Your task to perform on an android device: Turn off the flashlight Image 0: 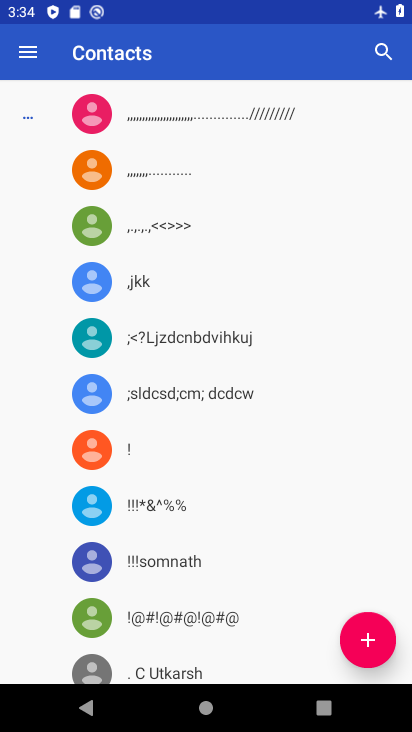
Step 0: drag from (327, 7) to (322, 416)
Your task to perform on an android device: Turn off the flashlight Image 1: 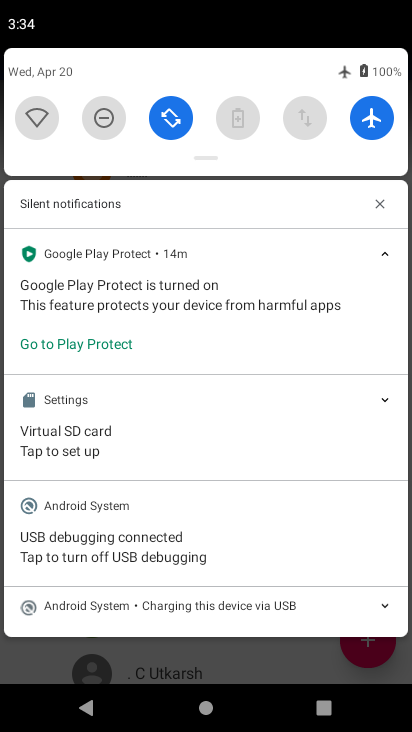
Step 1: drag from (206, 131) to (190, 578)
Your task to perform on an android device: Turn off the flashlight Image 2: 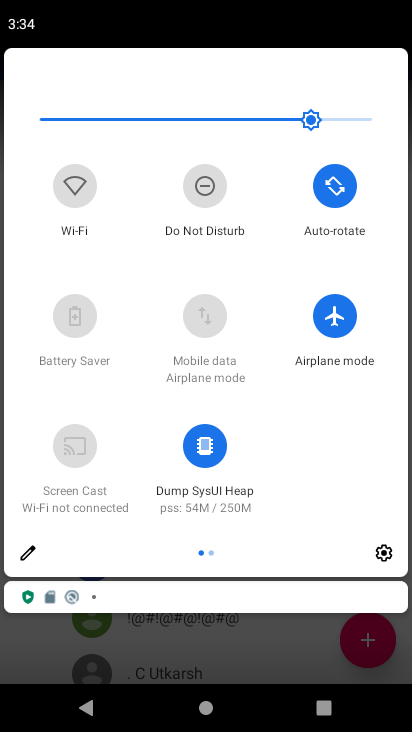
Step 2: drag from (370, 446) to (10, 389)
Your task to perform on an android device: Turn off the flashlight Image 3: 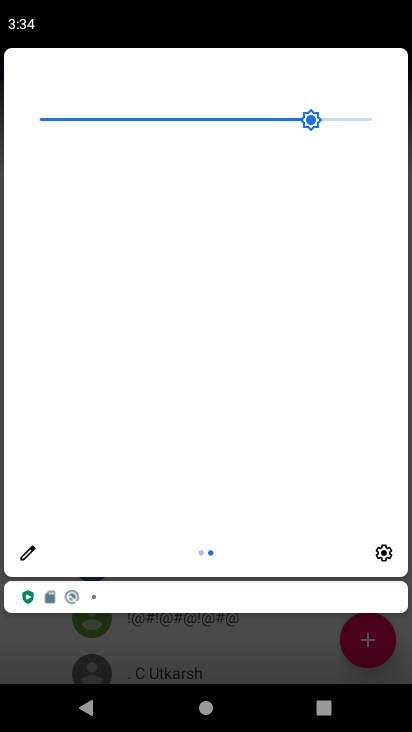
Step 3: click (25, 557)
Your task to perform on an android device: Turn off the flashlight Image 4: 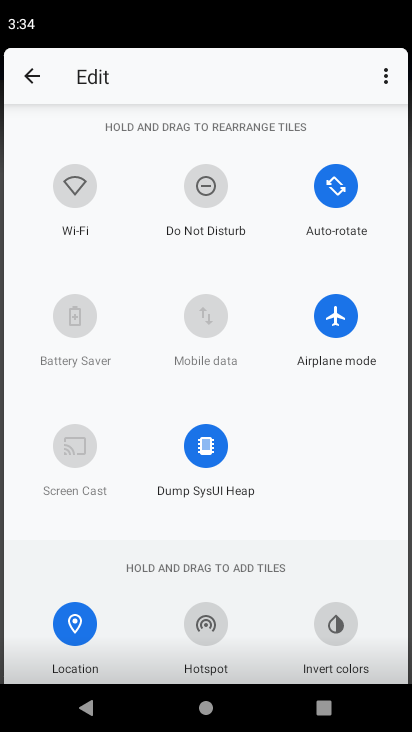
Step 4: task complete